Your task to perform on an android device: Open display settings Image 0: 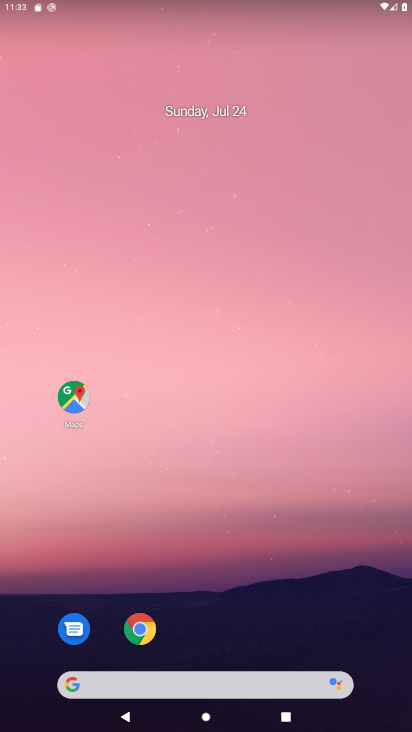
Step 0: drag from (225, 610) to (263, 6)
Your task to perform on an android device: Open display settings Image 1: 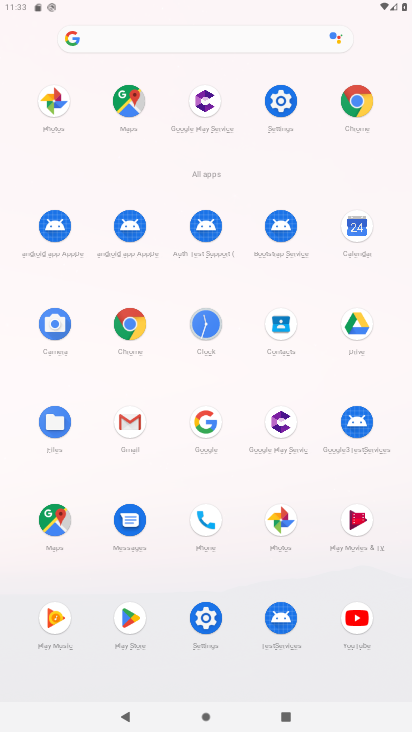
Step 1: click (208, 626)
Your task to perform on an android device: Open display settings Image 2: 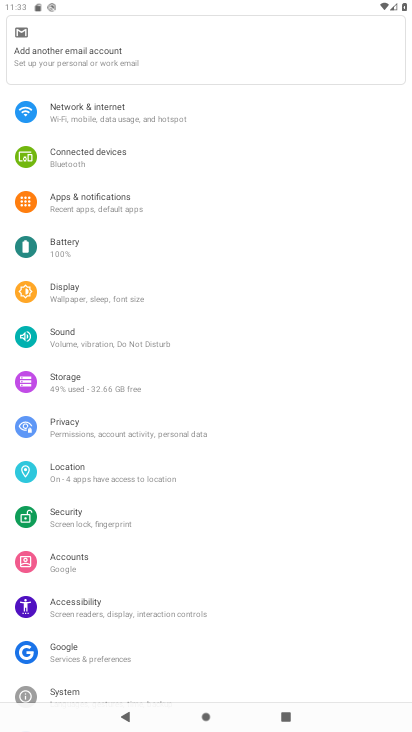
Step 2: click (112, 298)
Your task to perform on an android device: Open display settings Image 3: 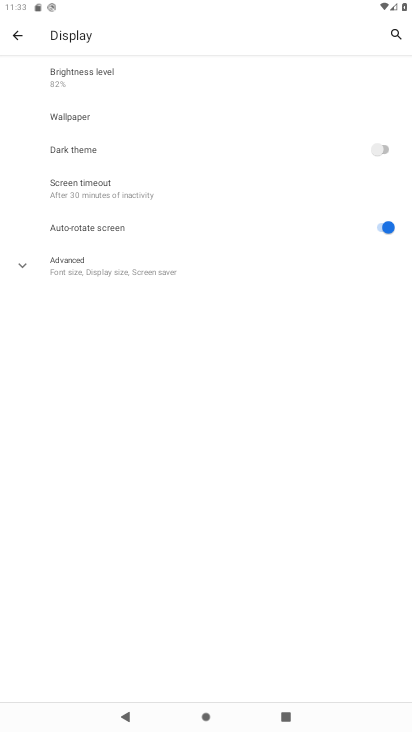
Step 3: task complete